Your task to perform on an android device: stop showing notifications on the lock screen Image 0: 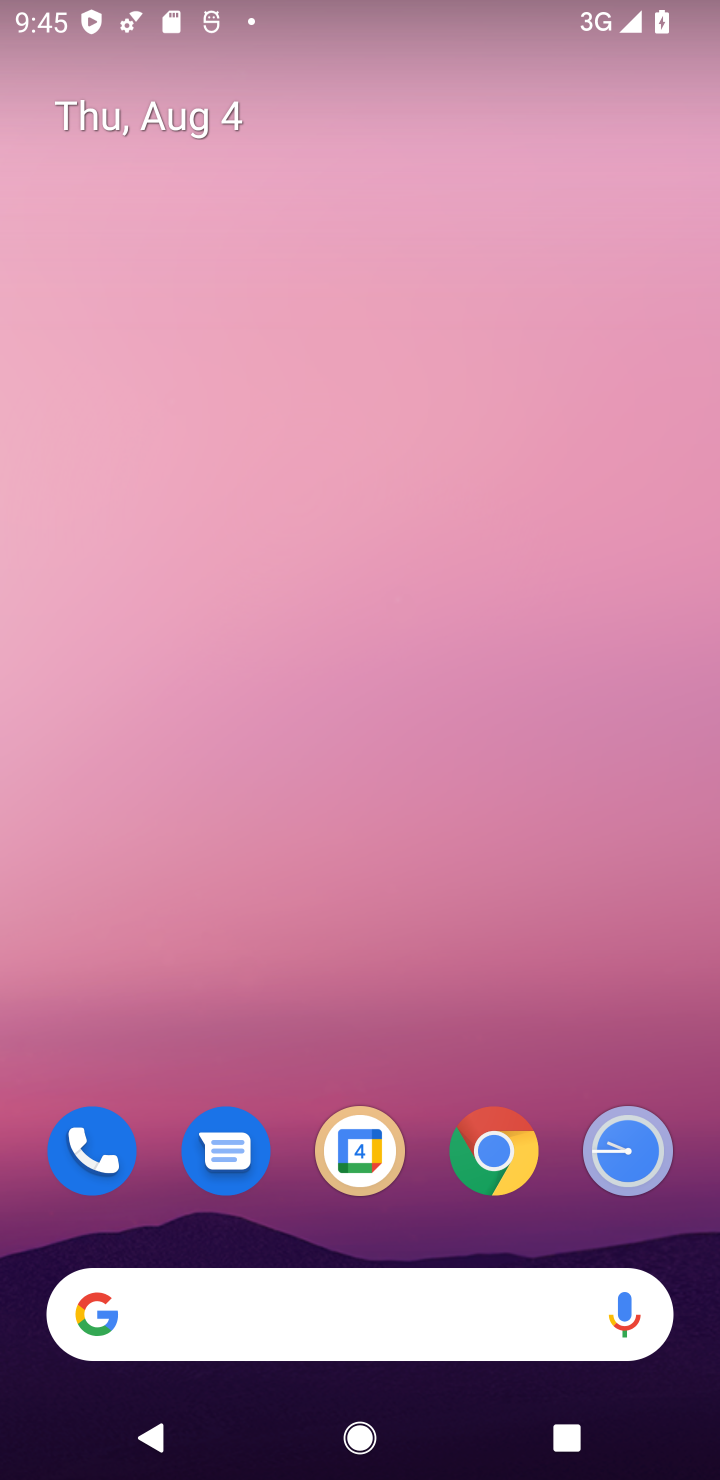
Step 0: drag from (479, 1053) to (470, 160)
Your task to perform on an android device: stop showing notifications on the lock screen Image 1: 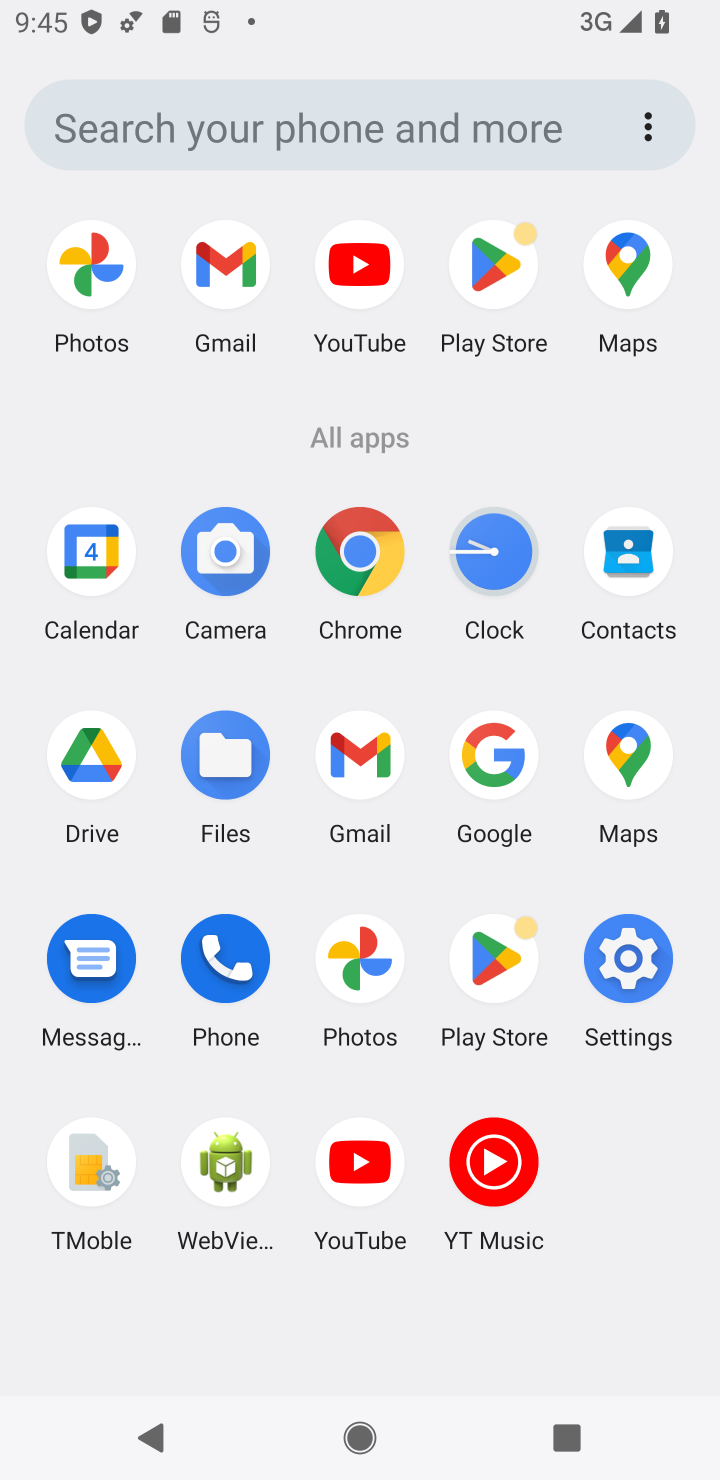
Step 1: click (598, 946)
Your task to perform on an android device: stop showing notifications on the lock screen Image 2: 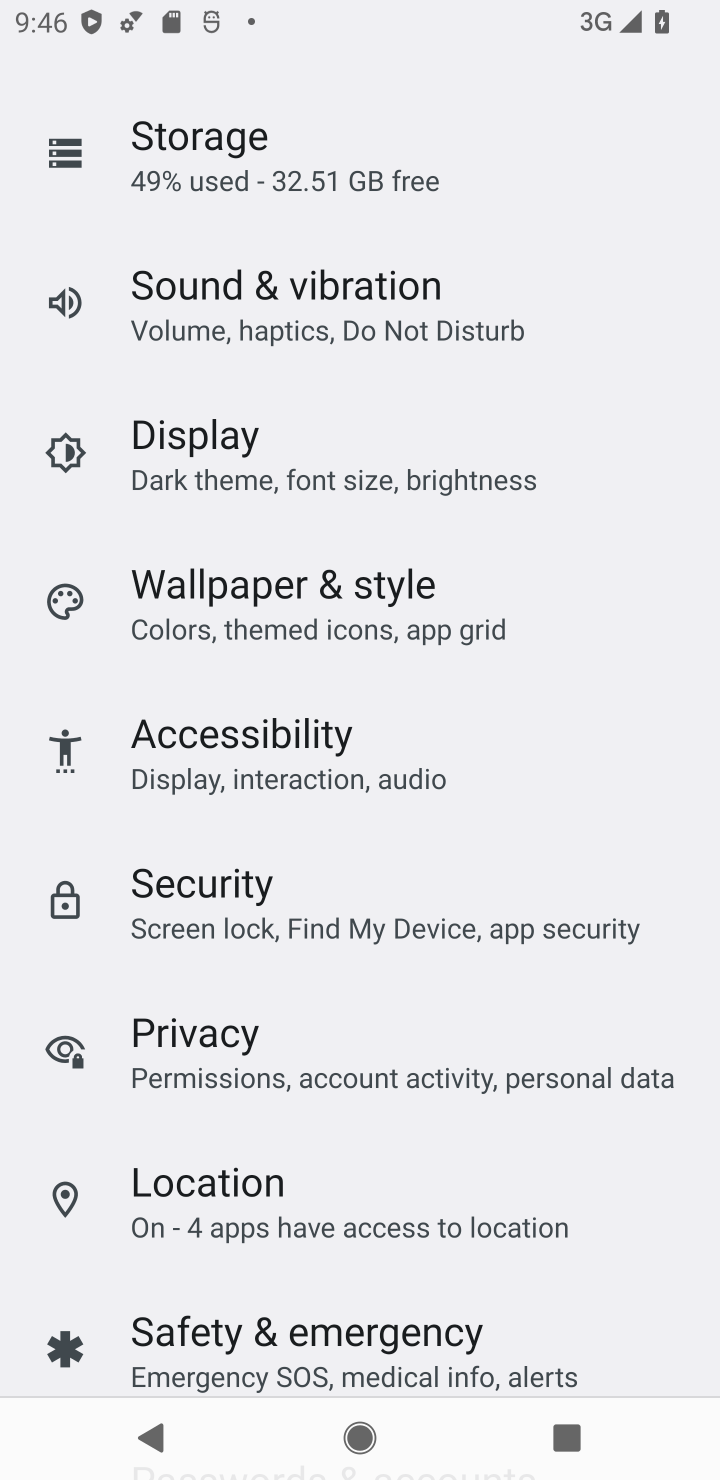
Step 2: drag from (280, 349) to (611, 1344)
Your task to perform on an android device: stop showing notifications on the lock screen Image 3: 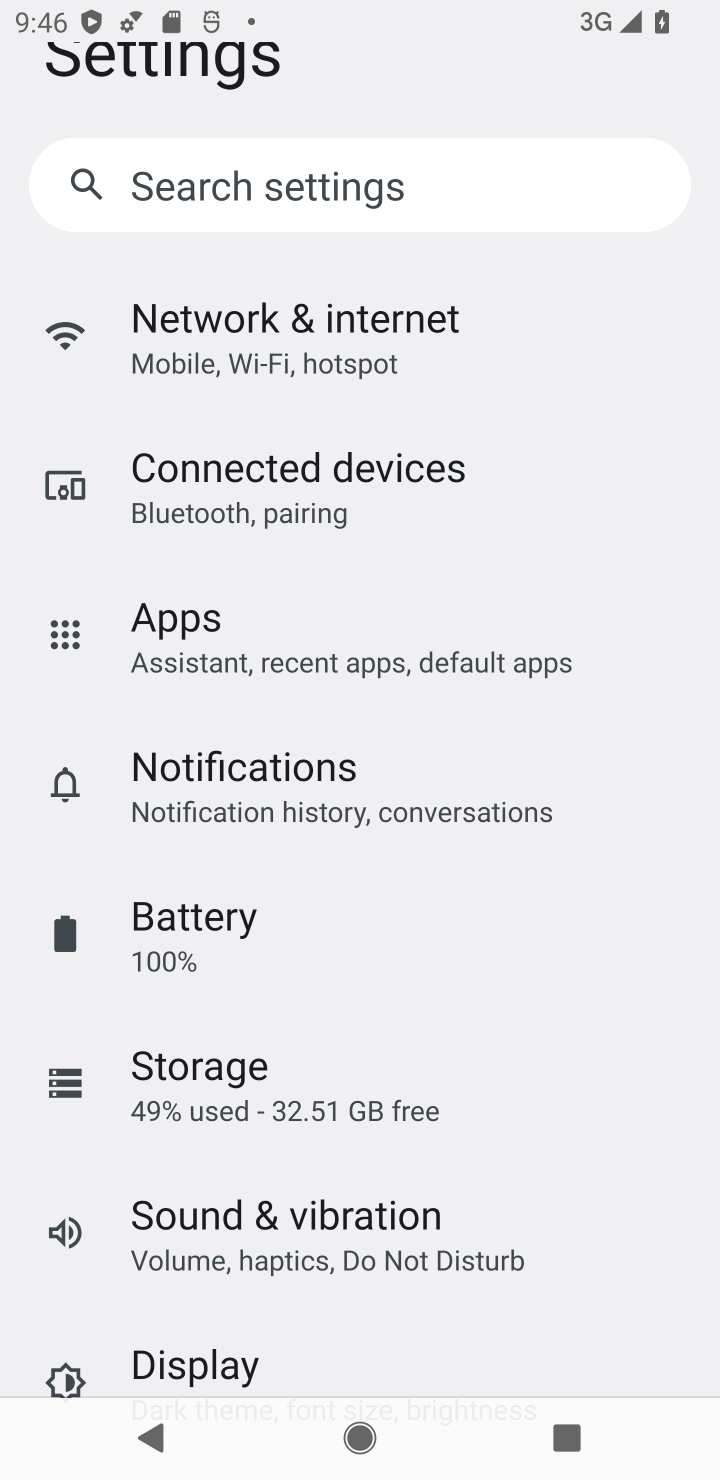
Step 3: click (387, 776)
Your task to perform on an android device: stop showing notifications on the lock screen Image 4: 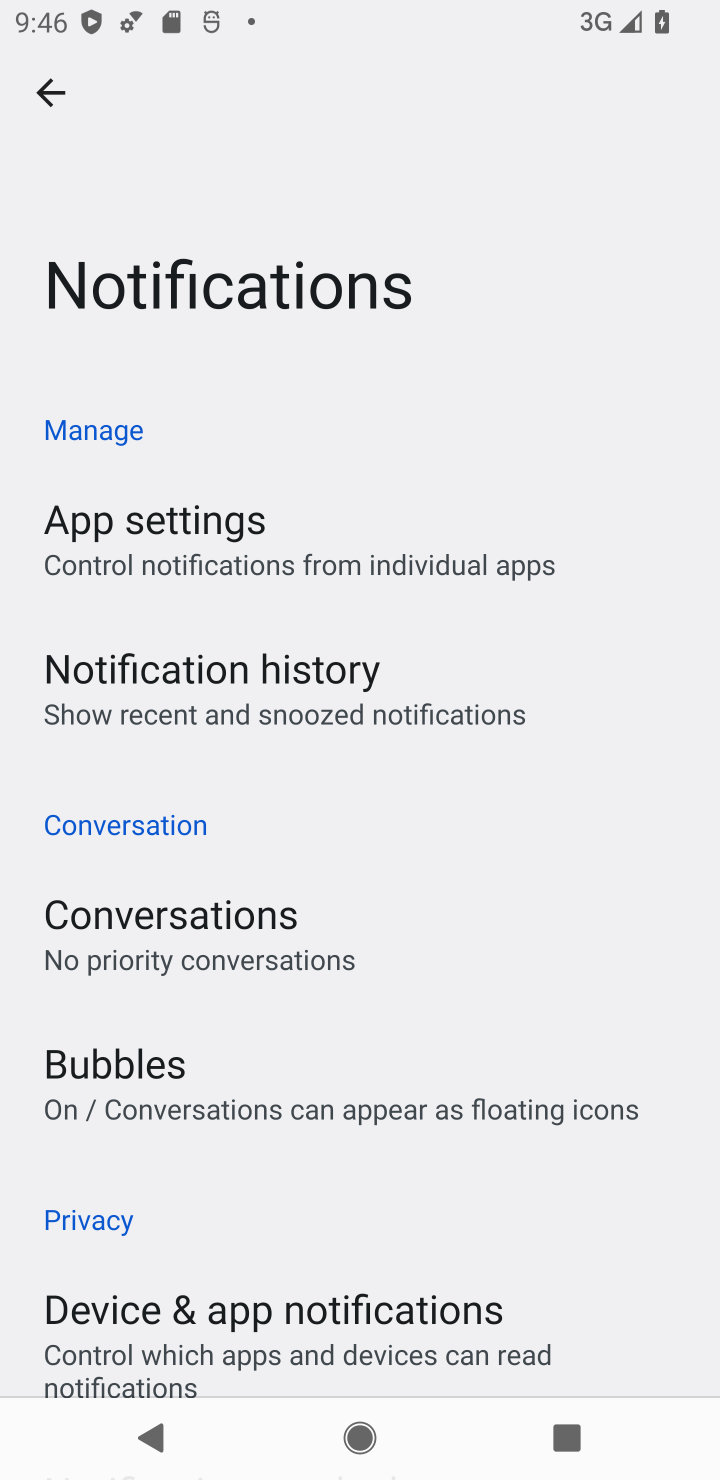
Step 4: drag from (440, 1196) to (375, 643)
Your task to perform on an android device: stop showing notifications on the lock screen Image 5: 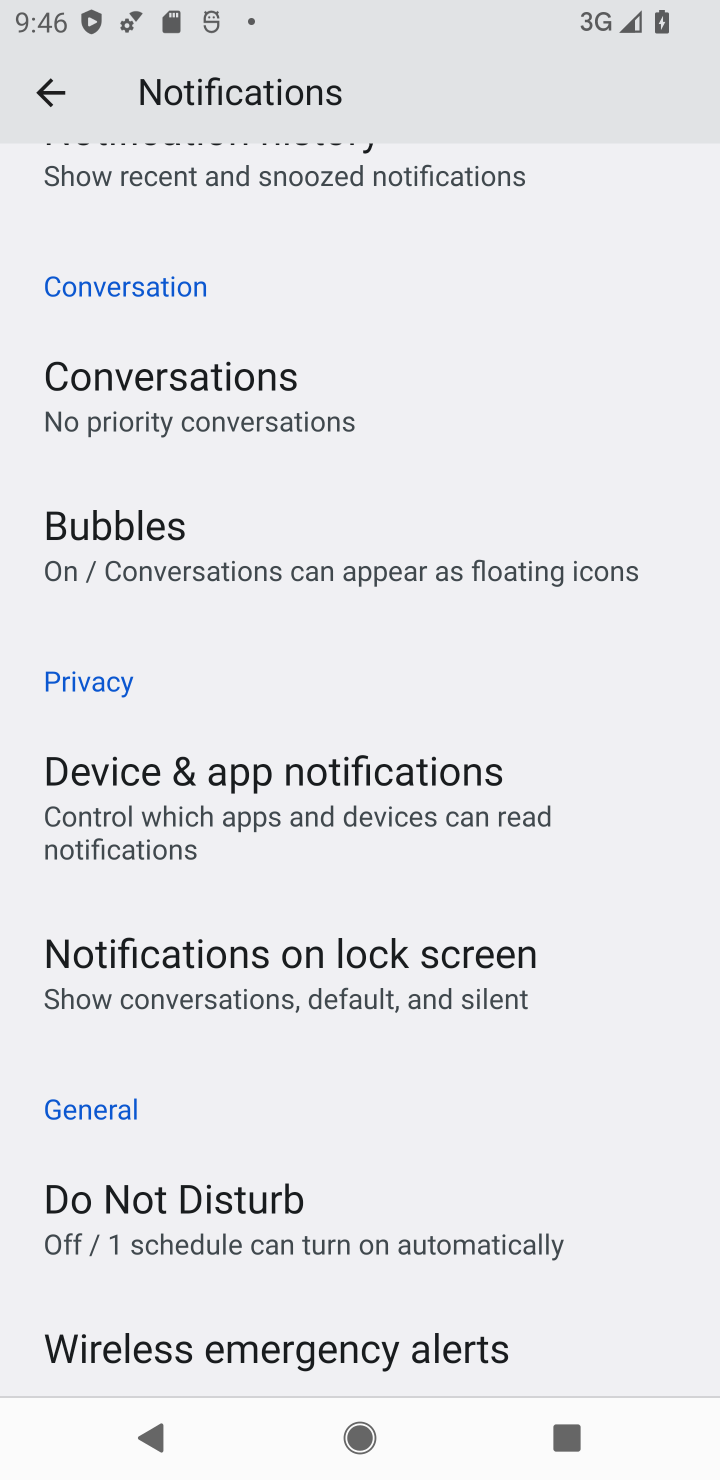
Step 5: click (369, 977)
Your task to perform on an android device: stop showing notifications on the lock screen Image 6: 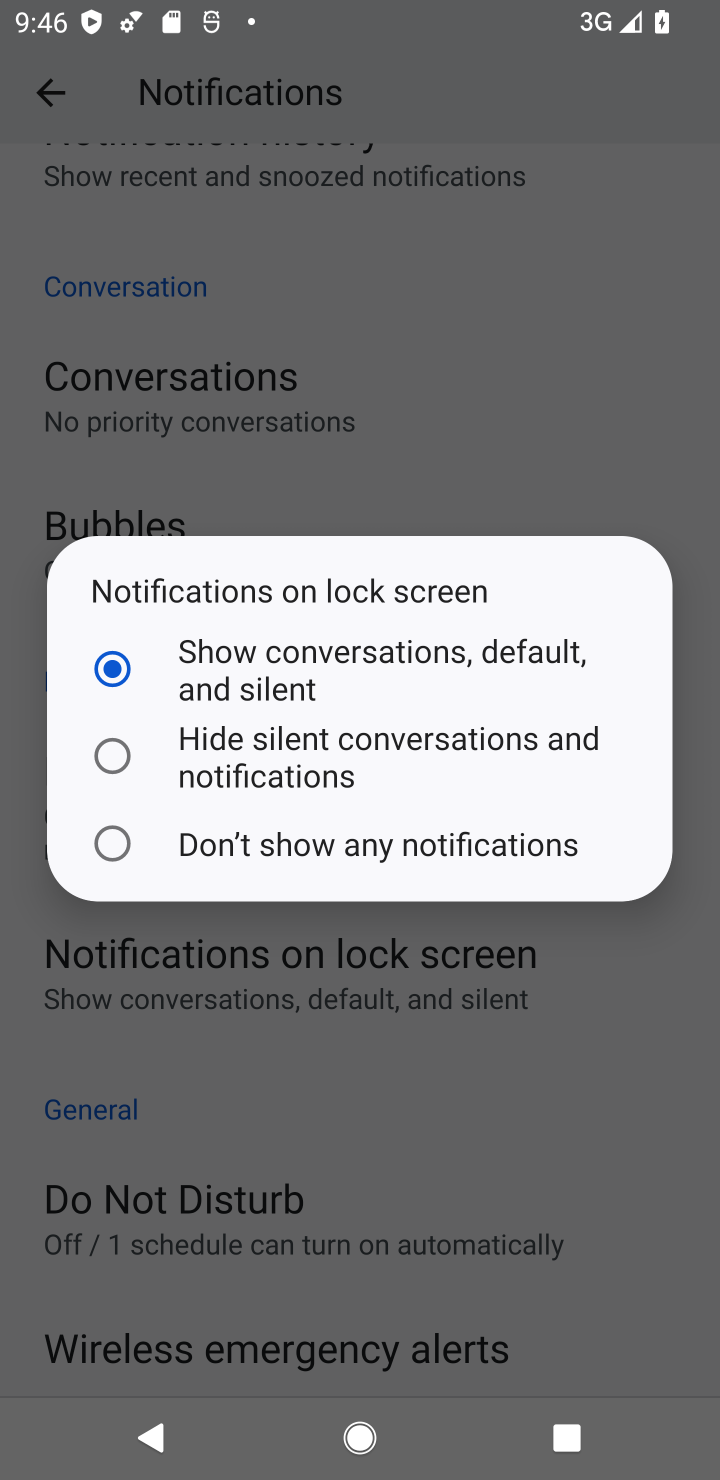
Step 6: click (108, 841)
Your task to perform on an android device: stop showing notifications on the lock screen Image 7: 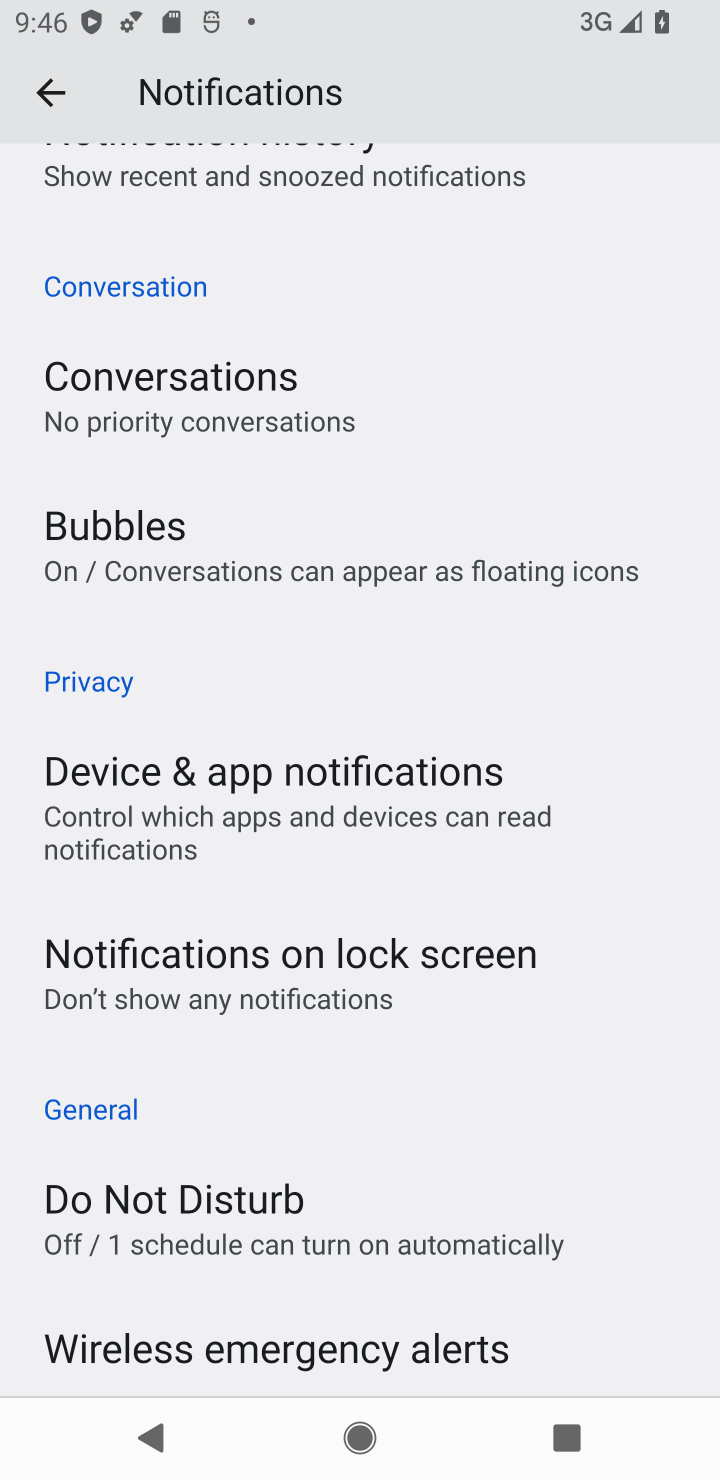
Step 7: task complete